Your task to perform on an android device: What's the weather? Image 0: 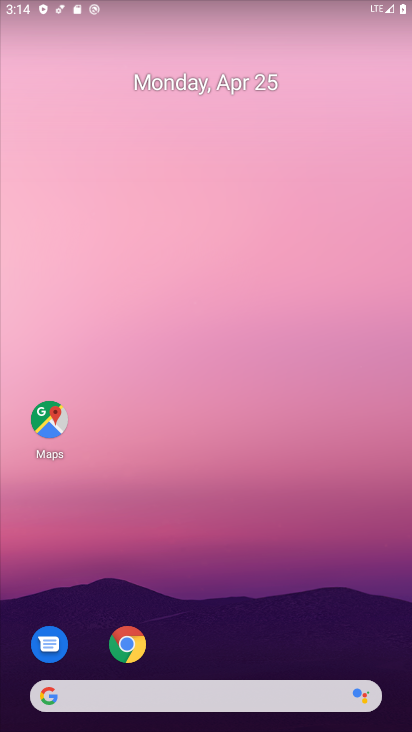
Step 0: click (223, 276)
Your task to perform on an android device: What's the weather? Image 1: 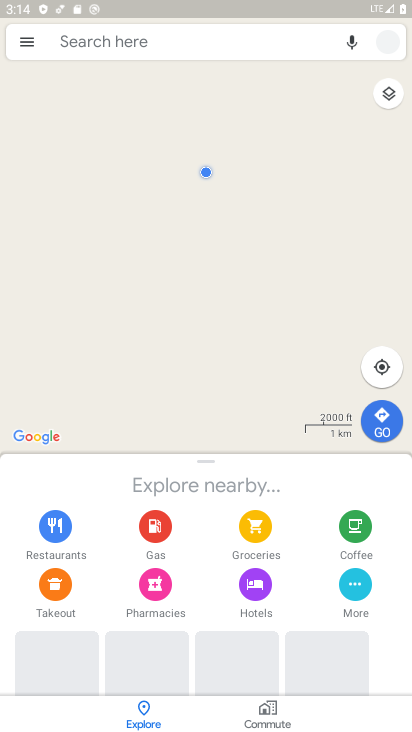
Step 1: press home button
Your task to perform on an android device: What's the weather? Image 2: 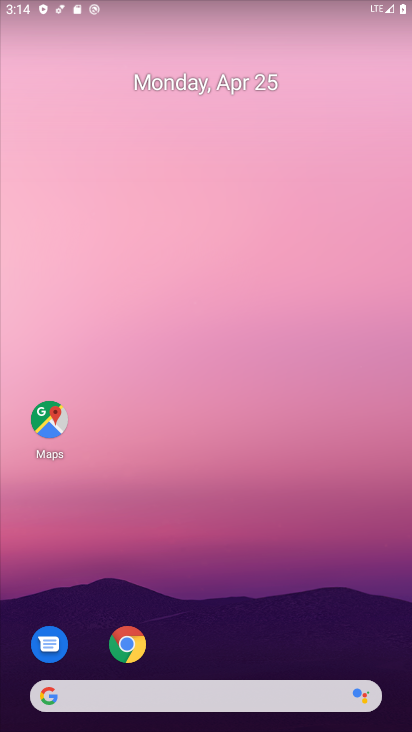
Step 2: click (137, 652)
Your task to perform on an android device: What's the weather? Image 3: 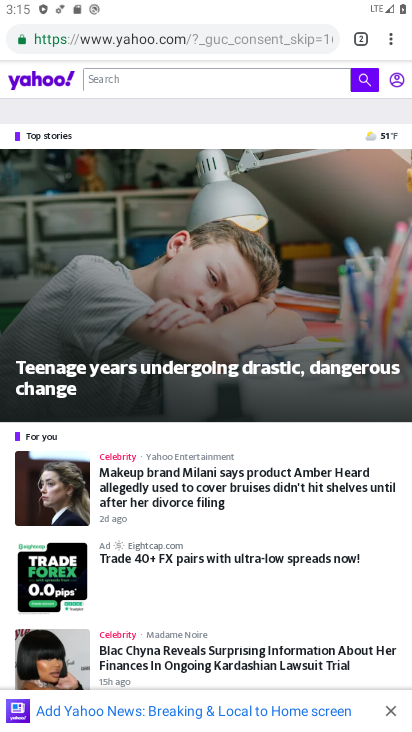
Step 3: drag from (227, 726) to (347, 724)
Your task to perform on an android device: What's the weather? Image 4: 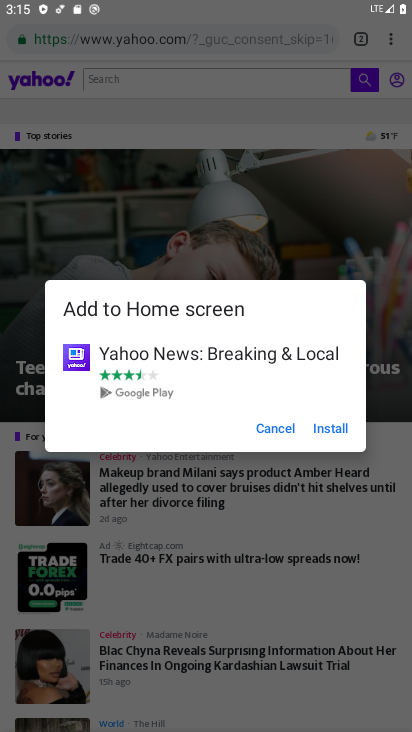
Step 4: click (363, 36)
Your task to perform on an android device: What's the weather? Image 5: 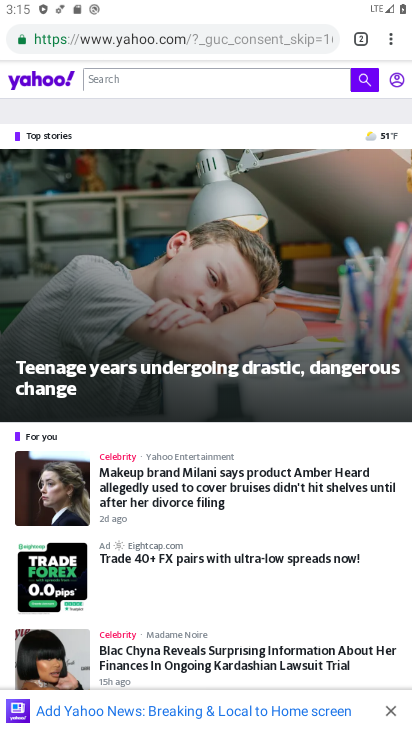
Step 5: click (363, 36)
Your task to perform on an android device: What's the weather? Image 6: 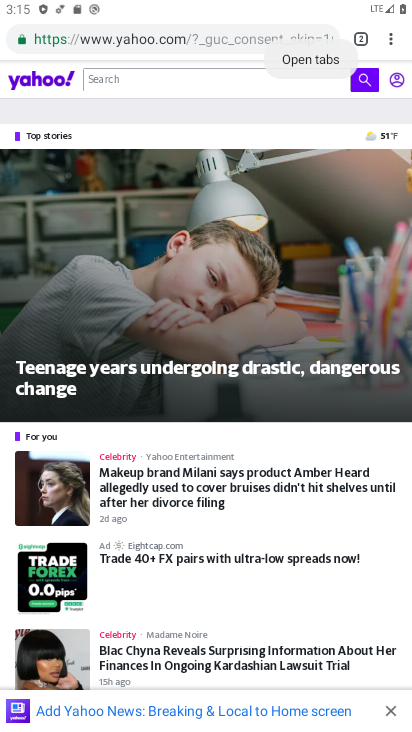
Step 6: click (361, 37)
Your task to perform on an android device: What's the weather? Image 7: 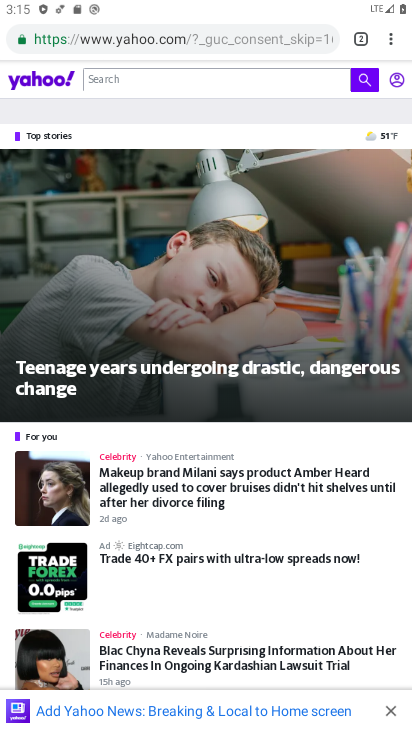
Step 7: click (392, 39)
Your task to perform on an android device: What's the weather? Image 8: 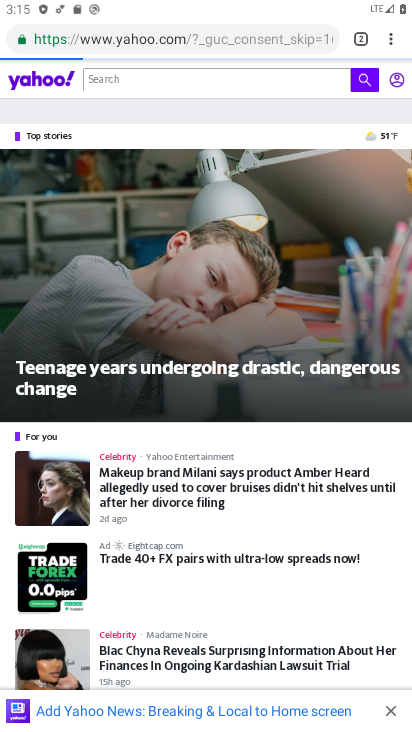
Step 8: drag from (392, 39) to (270, 131)
Your task to perform on an android device: What's the weather? Image 9: 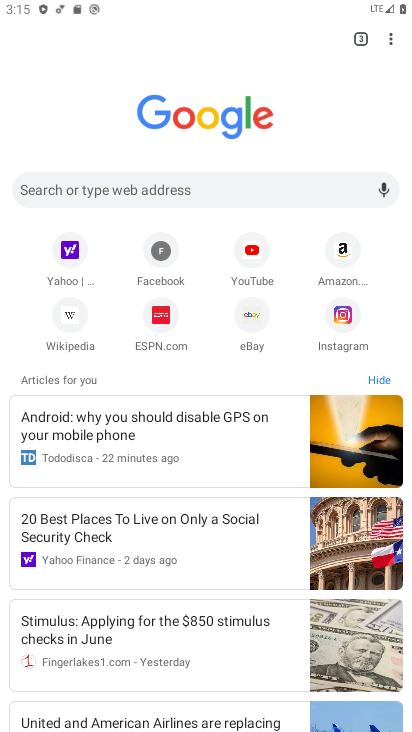
Step 9: click (184, 192)
Your task to perform on an android device: What's the weather? Image 10: 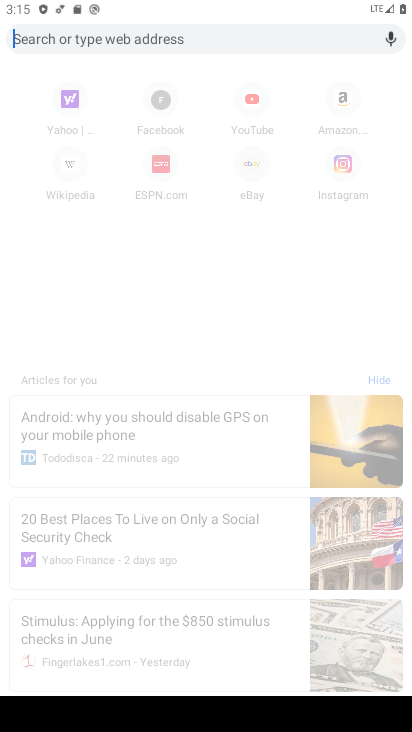
Step 10: type "What's the weather?"
Your task to perform on an android device: What's the weather? Image 11: 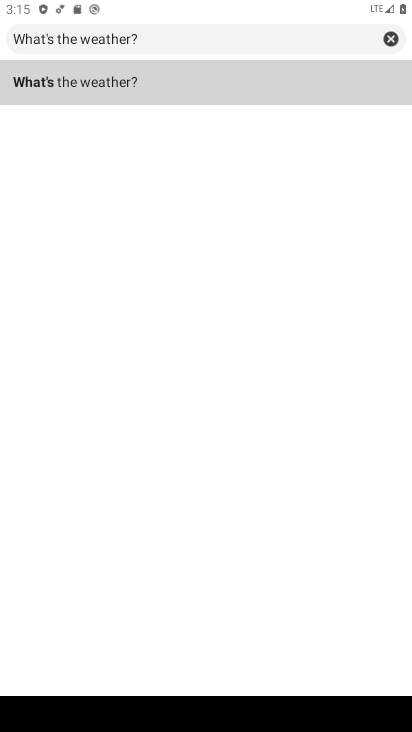
Step 11: click (74, 86)
Your task to perform on an android device: What's the weather? Image 12: 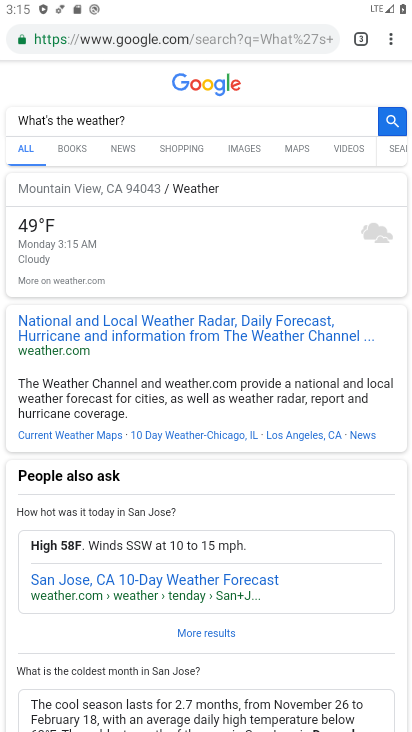
Step 12: task complete